Your task to perform on an android device: see tabs open on other devices in the chrome app Image 0: 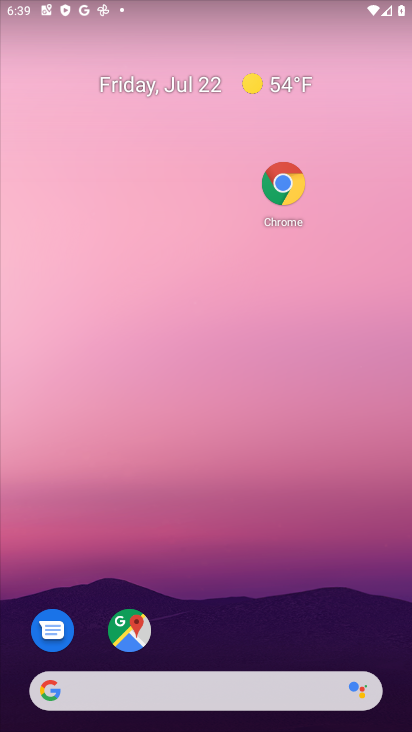
Step 0: click (278, 180)
Your task to perform on an android device: see tabs open on other devices in the chrome app Image 1: 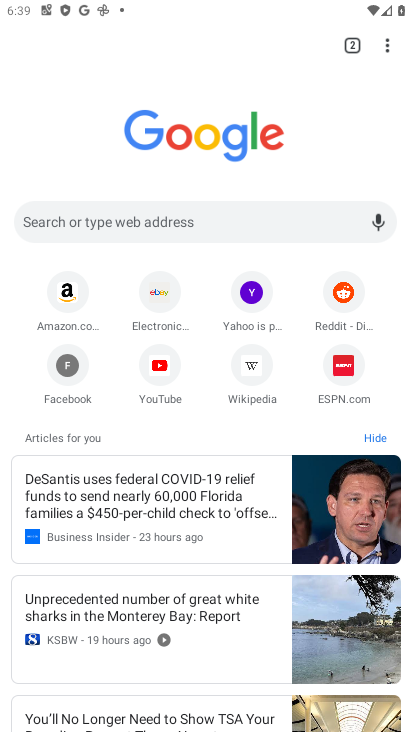
Step 1: click (383, 47)
Your task to perform on an android device: see tabs open on other devices in the chrome app Image 2: 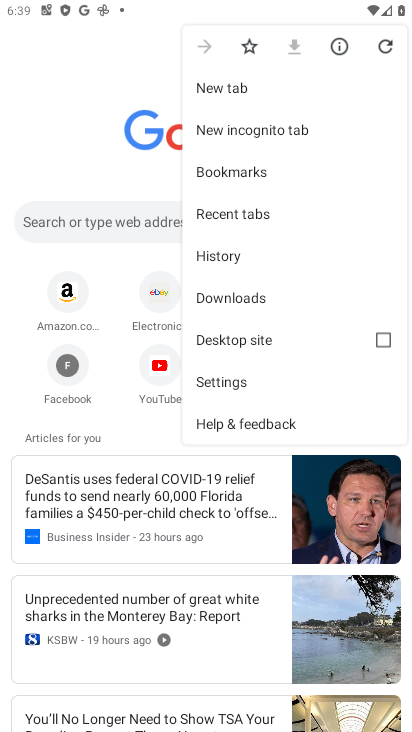
Step 2: click (224, 215)
Your task to perform on an android device: see tabs open on other devices in the chrome app Image 3: 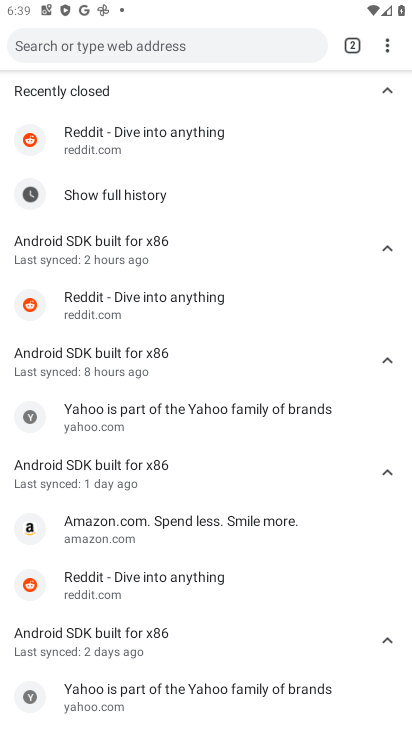
Step 3: click (197, 513)
Your task to perform on an android device: see tabs open on other devices in the chrome app Image 4: 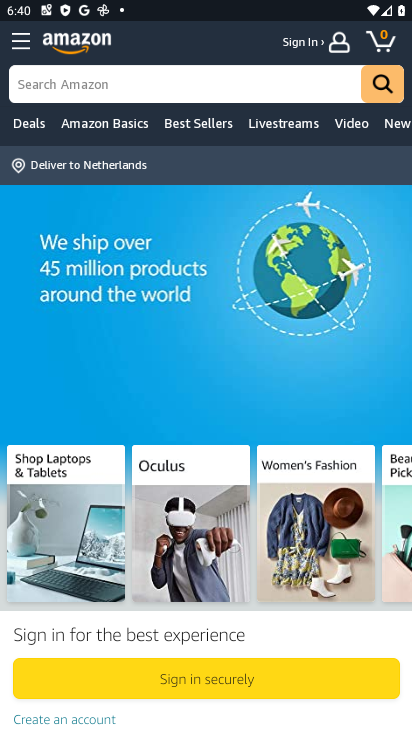
Step 4: task complete